Your task to perform on an android device: turn on translation in the chrome app Image 0: 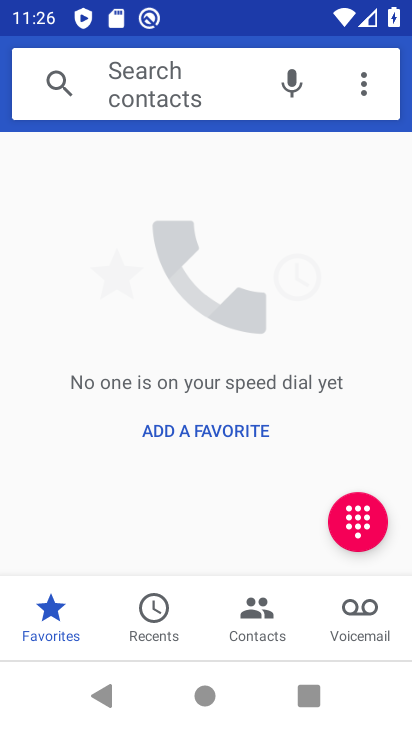
Step 0: press home button
Your task to perform on an android device: turn on translation in the chrome app Image 1: 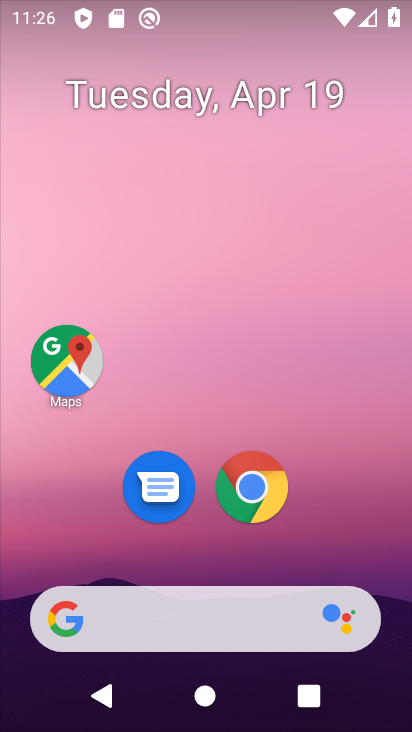
Step 1: drag from (384, 552) to (399, 260)
Your task to perform on an android device: turn on translation in the chrome app Image 2: 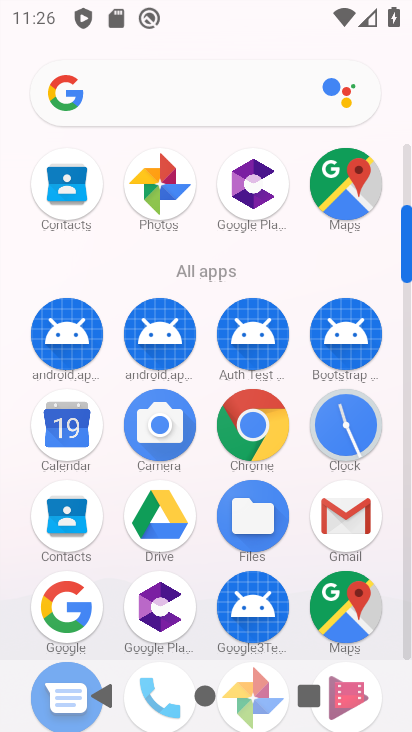
Step 2: click (247, 422)
Your task to perform on an android device: turn on translation in the chrome app Image 3: 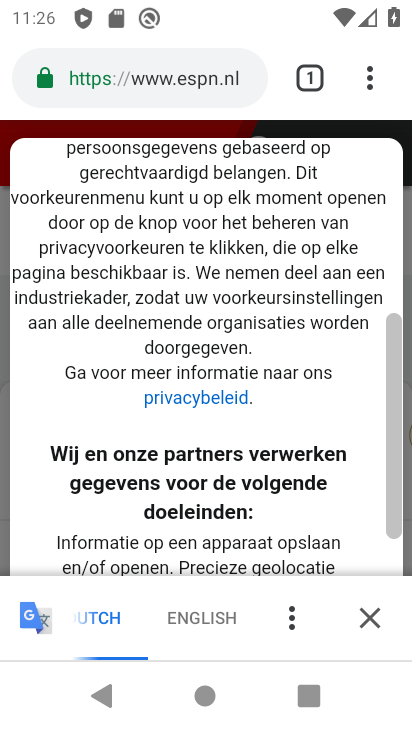
Step 3: press back button
Your task to perform on an android device: turn on translation in the chrome app Image 4: 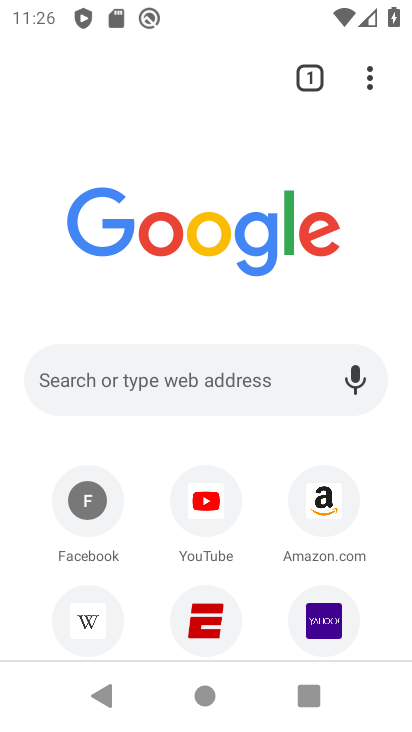
Step 4: click (369, 80)
Your task to perform on an android device: turn on translation in the chrome app Image 5: 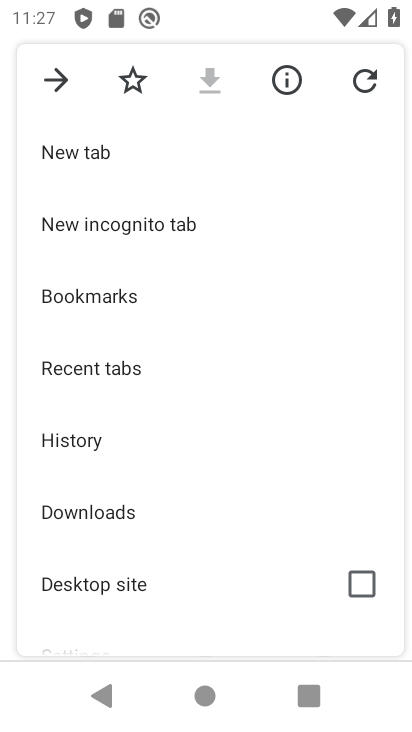
Step 5: drag from (206, 543) to (244, 163)
Your task to perform on an android device: turn on translation in the chrome app Image 6: 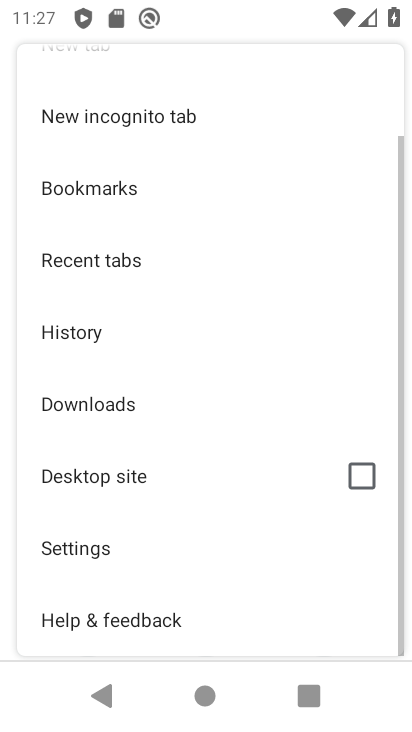
Step 6: click (170, 549)
Your task to perform on an android device: turn on translation in the chrome app Image 7: 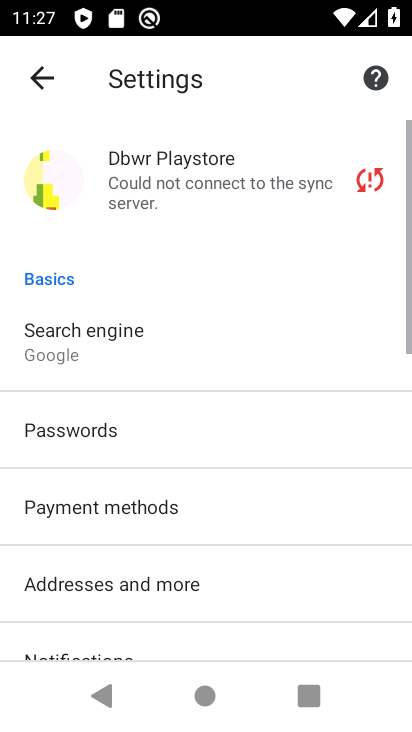
Step 7: drag from (167, 530) to (185, 174)
Your task to perform on an android device: turn on translation in the chrome app Image 8: 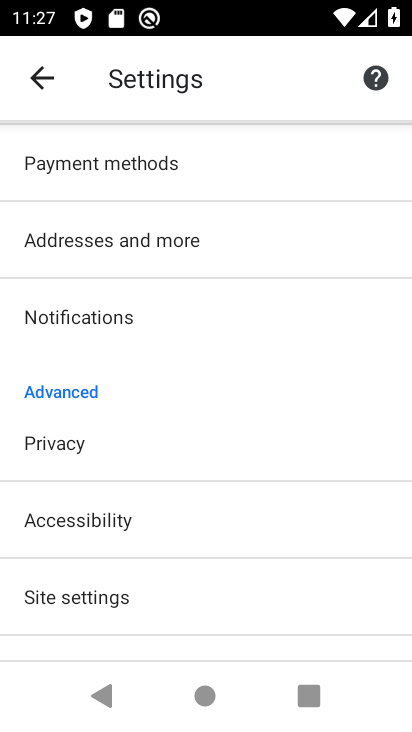
Step 8: drag from (154, 569) to (171, 301)
Your task to perform on an android device: turn on translation in the chrome app Image 9: 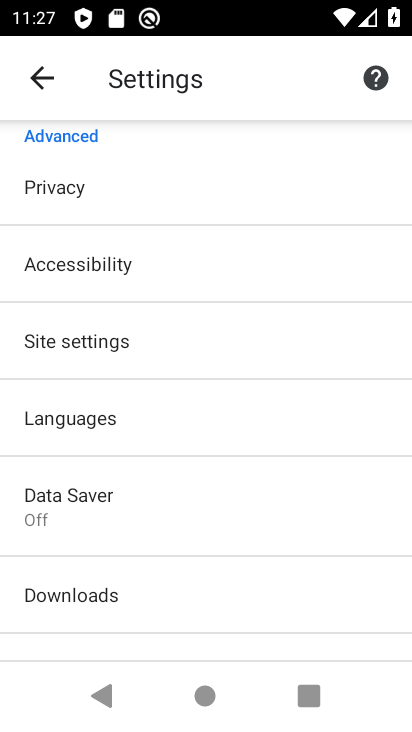
Step 9: click (167, 406)
Your task to perform on an android device: turn on translation in the chrome app Image 10: 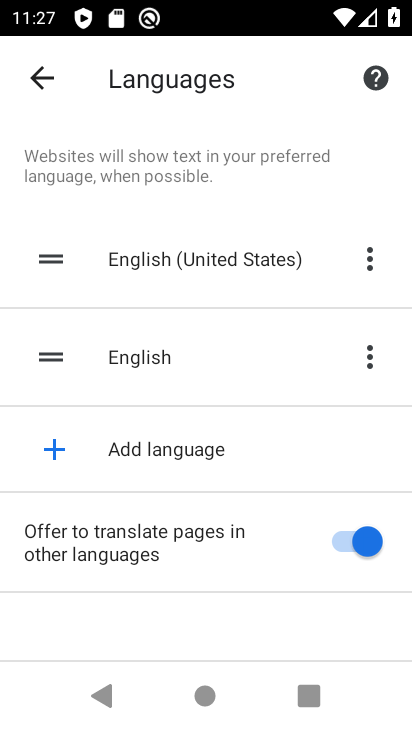
Step 10: task complete